Your task to perform on an android device: turn off data saver in the chrome app Image 0: 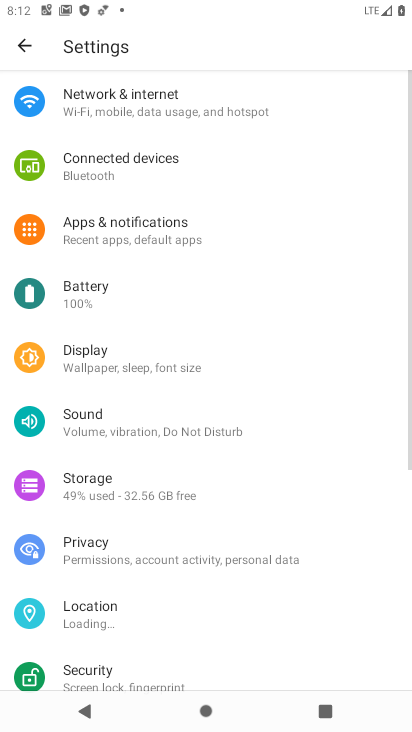
Step 0: press home button
Your task to perform on an android device: turn off data saver in the chrome app Image 1: 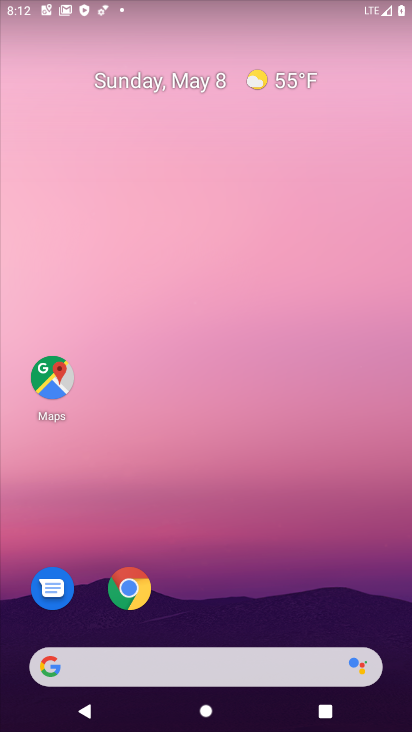
Step 1: drag from (338, 605) to (227, 49)
Your task to perform on an android device: turn off data saver in the chrome app Image 2: 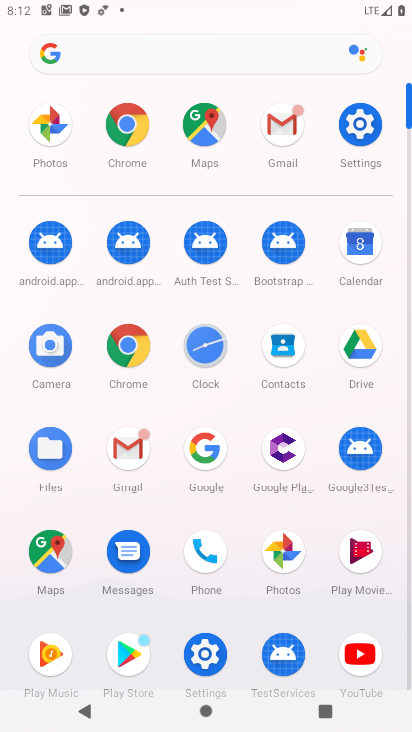
Step 2: click (127, 135)
Your task to perform on an android device: turn off data saver in the chrome app Image 3: 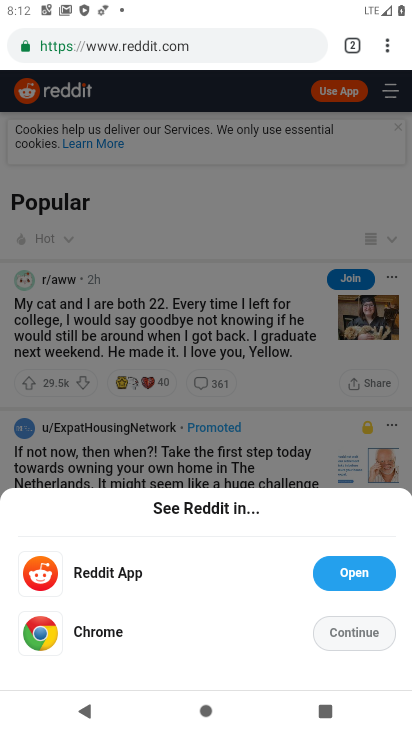
Step 3: press back button
Your task to perform on an android device: turn off data saver in the chrome app Image 4: 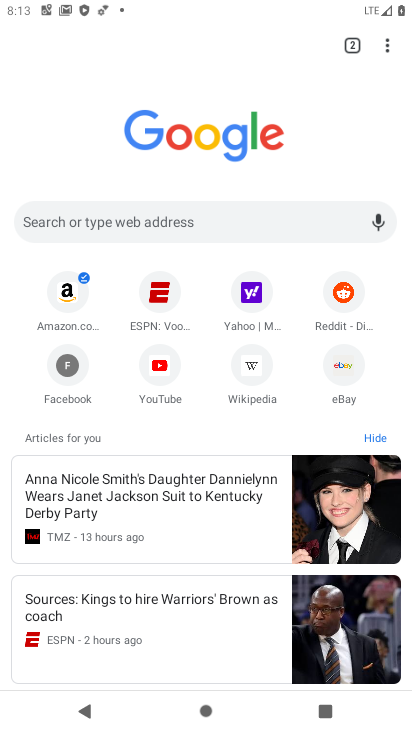
Step 4: click (385, 40)
Your task to perform on an android device: turn off data saver in the chrome app Image 5: 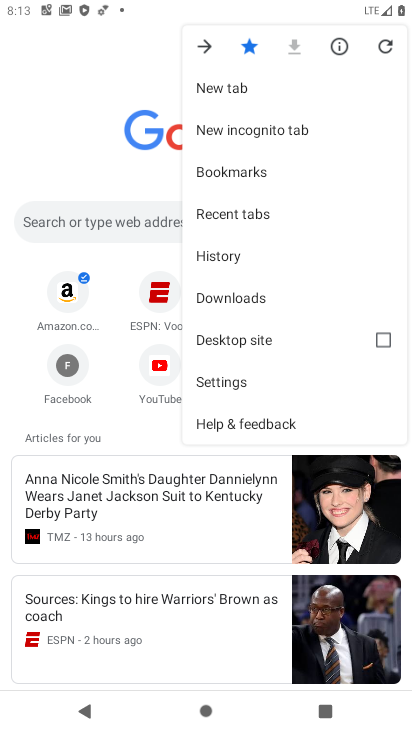
Step 5: click (252, 370)
Your task to perform on an android device: turn off data saver in the chrome app Image 6: 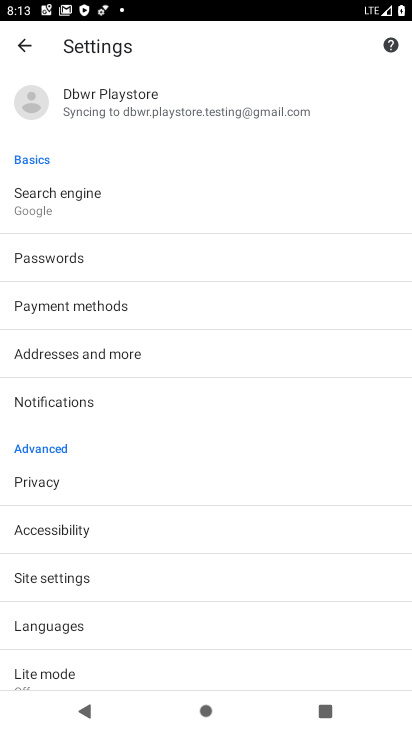
Step 6: click (111, 674)
Your task to perform on an android device: turn off data saver in the chrome app Image 7: 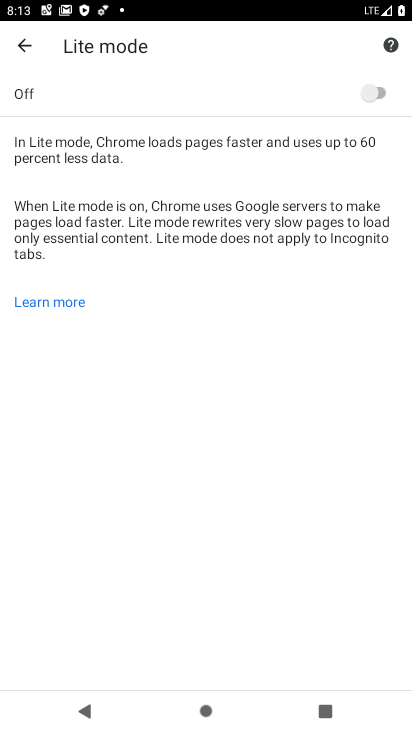
Step 7: task complete